Your task to perform on an android device: Go to wifi settings Image 0: 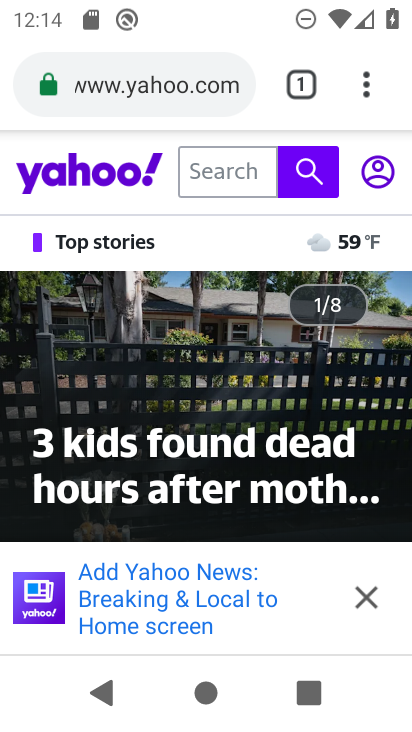
Step 0: press home button
Your task to perform on an android device: Go to wifi settings Image 1: 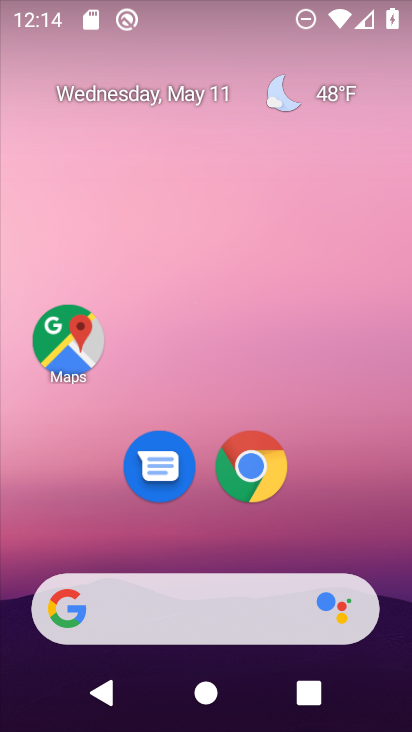
Step 1: drag from (202, 540) to (261, 81)
Your task to perform on an android device: Go to wifi settings Image 2: 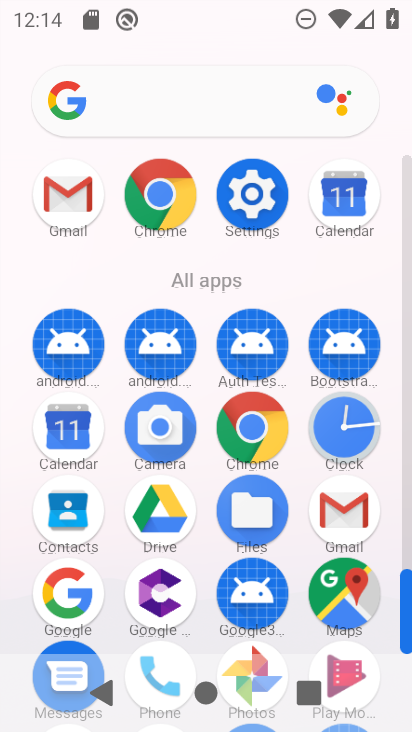
Step 2: click (67, 586)
Your task to perform on an android device: Go to wifi settings Image 3: 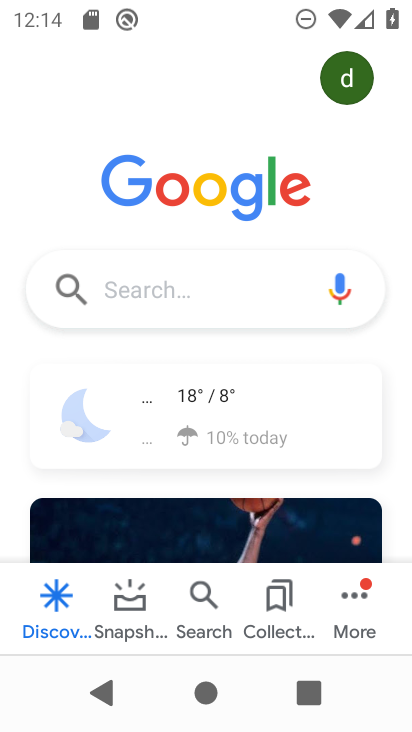
Step 3: press home button
Your task to perform on an android device: Go to wifi settings Image 4: 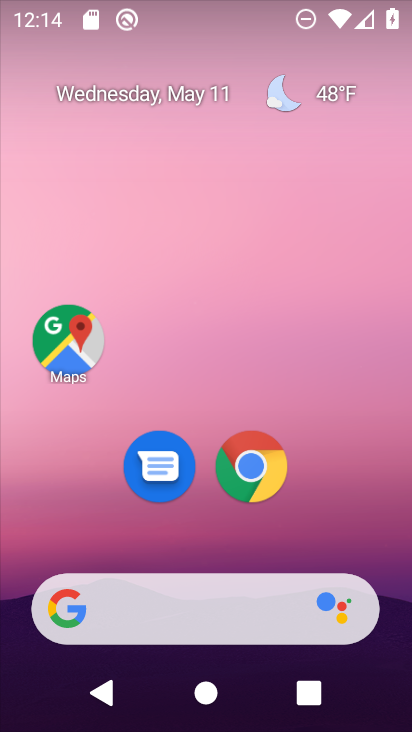
Step 4: drag from (221, 12) to (239, 572)
Your task to perform on an android device: Go to wifi settings Image 5: 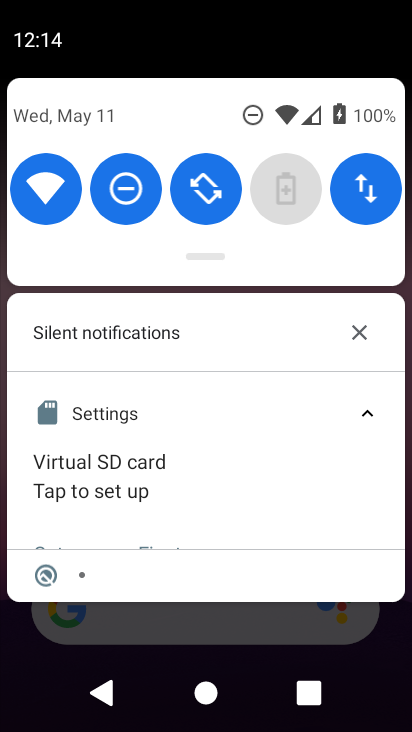
Step 5: drag from (253, 636) to (275, 210)
Your task to perform on an android device: Go to wifi settings Image 6: 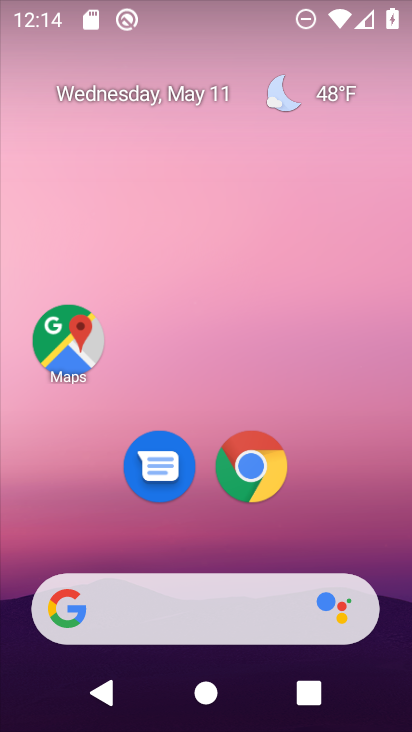
Step 6: drag from (207, 537) to (246, 70)
Your task to perform on an android device: Go to wifi settings Image 7: 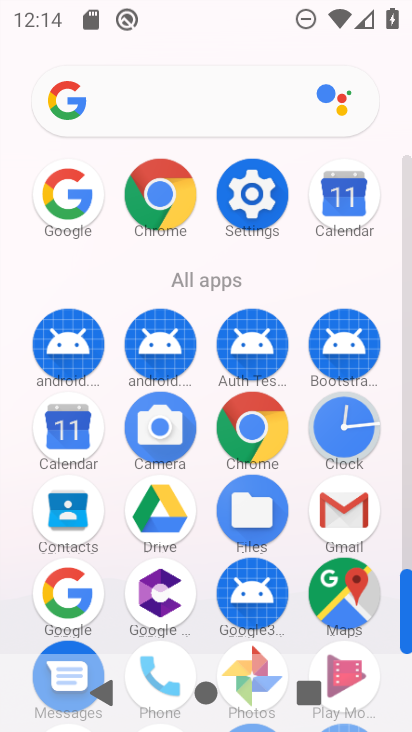
Step 7: click (252, 185)
Your task to perform on an android device: Go to wifi settings Image 8: 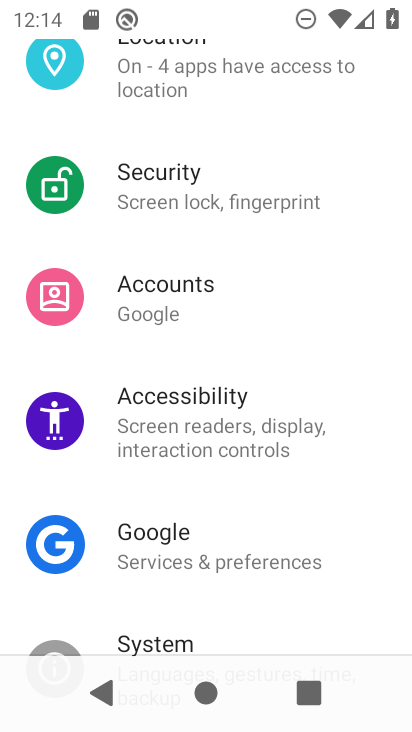
Step 8: drag from (220, 140) to (223, 705)
Your task to perform on an android device: Go to wifi settings Image 9: 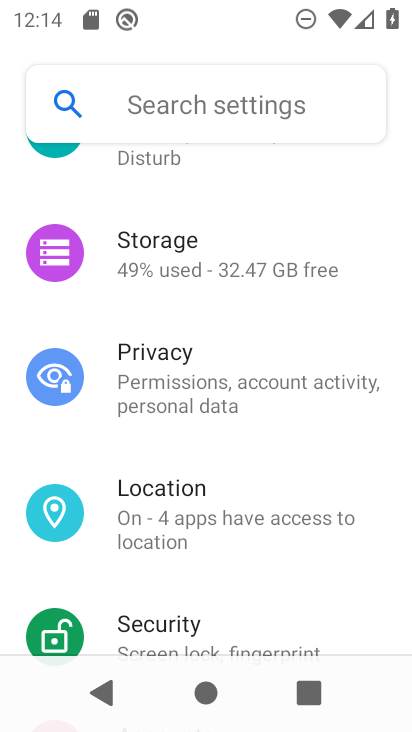
Step 9: drag from (226, 166) to (231, 729)
Your task to perform on an android device: Go to wifi settings Image 10: 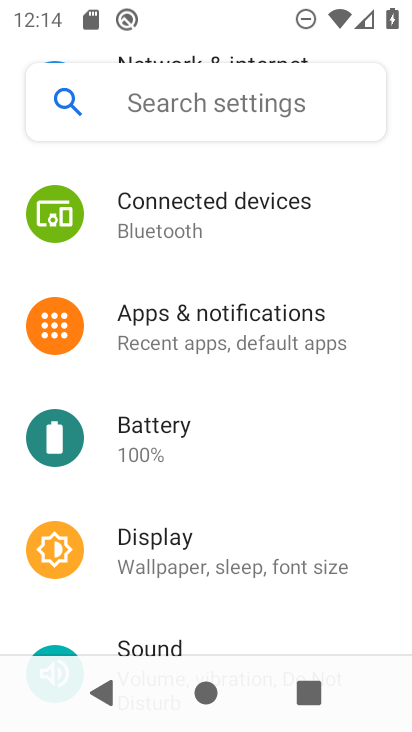
Step 10: drag from (225, 213) to (236, 622)
Your task to perform on an android device: Go to wifi settings Image 11: 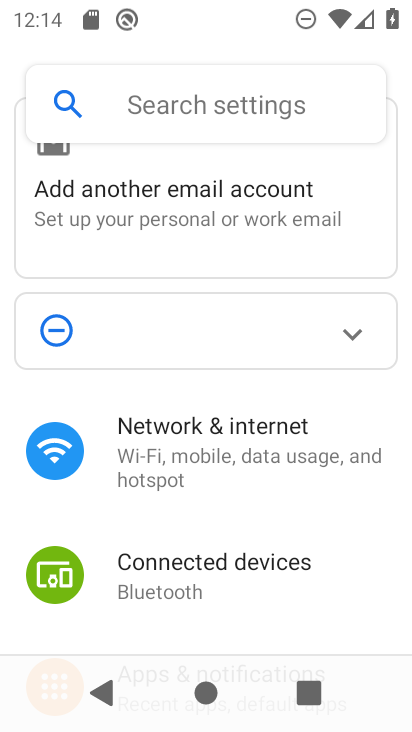
Step 11: click (213, 447)
Your task to perform on an android device: Go to wifi settings Image 12: 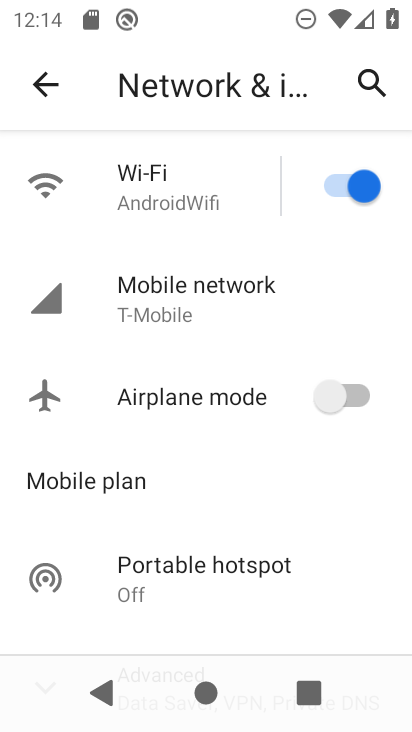
Step 12: click (240, 179)
Your task to perform on an android device: Go to wifi settings Image 13: 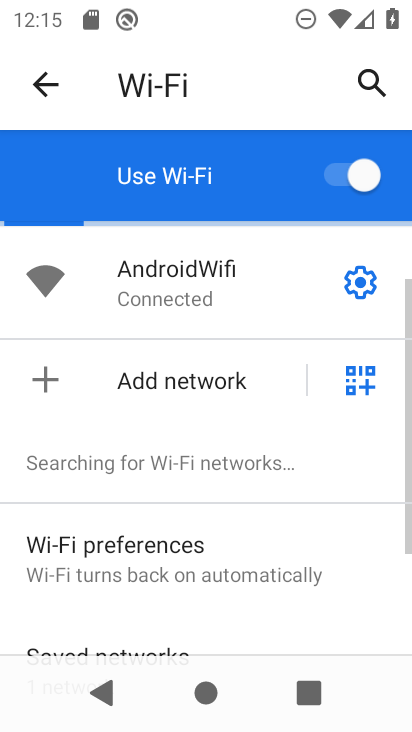
Step 13: task complete